Your task to perform on an android device: Go to Amazon Image 0: 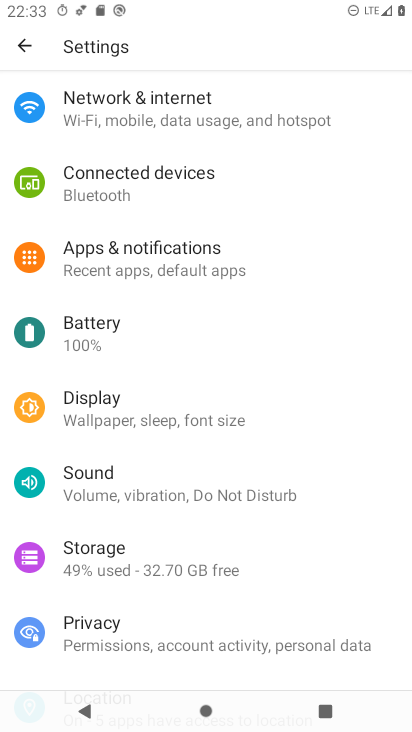
Step 0: press home button
Your task to perform on an android device: Go to Amazon Image 1: 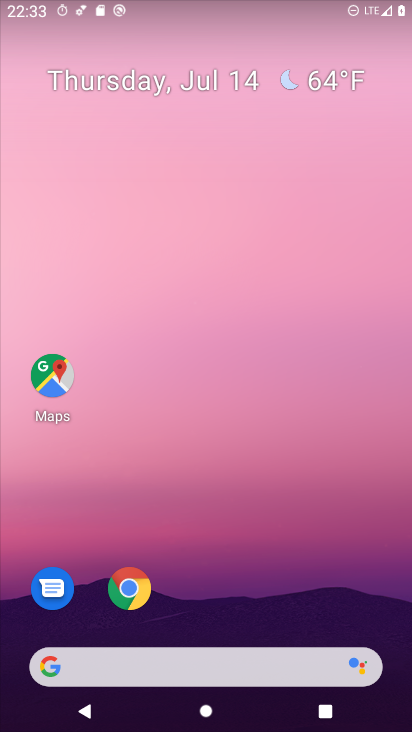
Step 1: drag from (326, 593) to (341, 156)
Your task to perform on an android device: Go to Amazon Image 2: 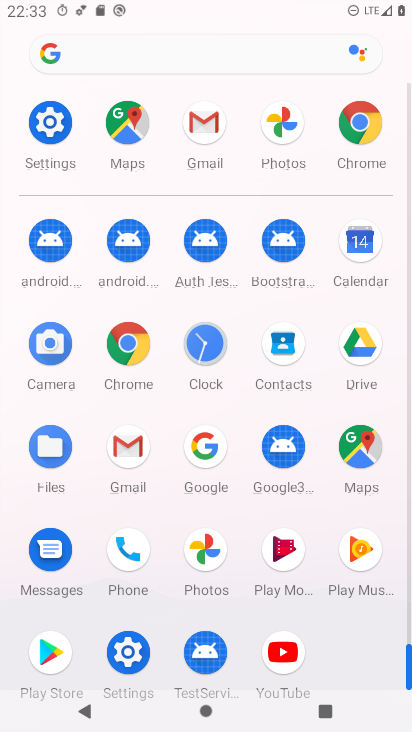
Step 2: click (131, 353)
Your task to perform on an android device: Go to Amazon Image 3: 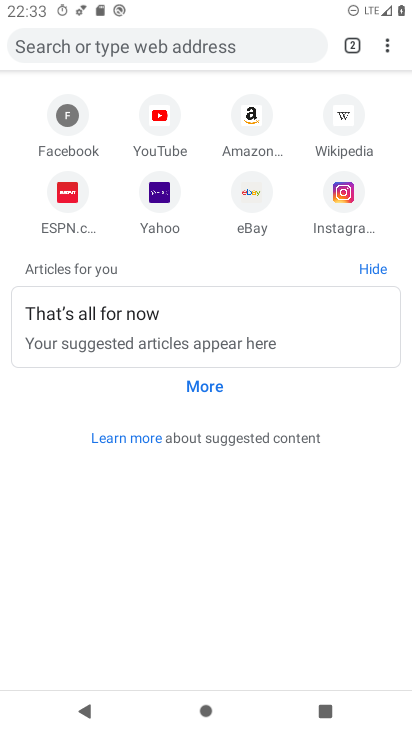
Step 3: click (201, 47)
Your task to perform on an android device: Go to Amazon Image 4: 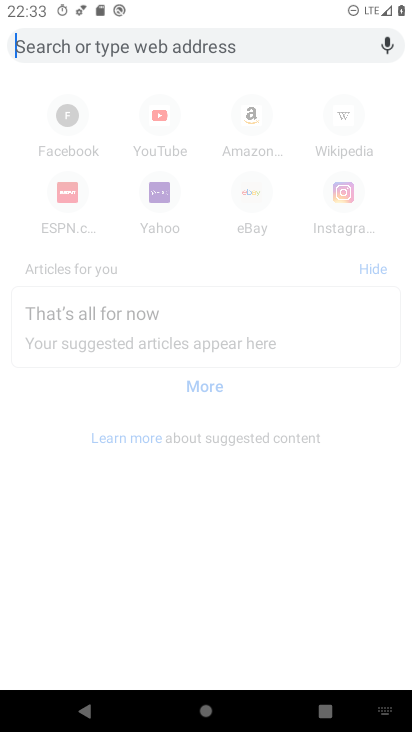
Step 4: type "amazon"
Your task to perform on an android device: Go to Amazon Image 5: 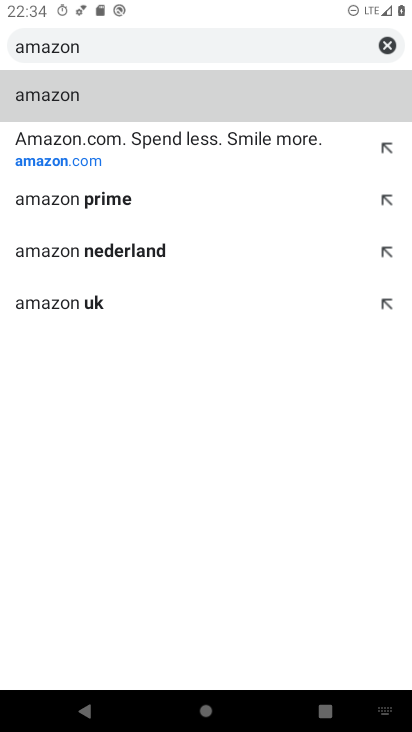
Step 5: click (282, 101)
Your task to perform on an android device: Go to Amazon Image 6: 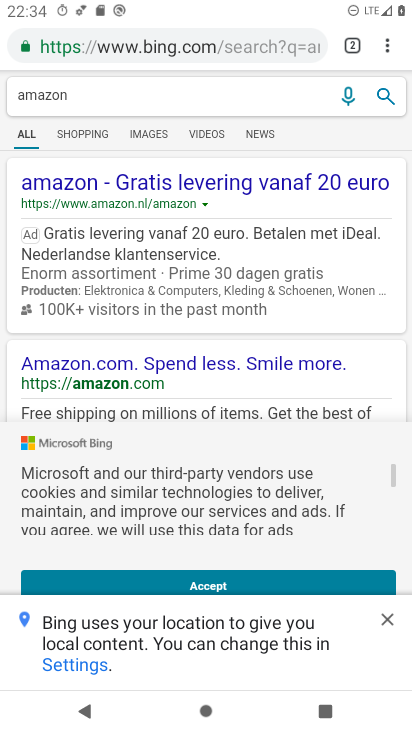
Step 6: task complete